Your task to perform on an android device: Show the shopping cart on bestbuy.com. Add logitech g pro to the cart on bestbuy.com, then select checkout. Image 0: 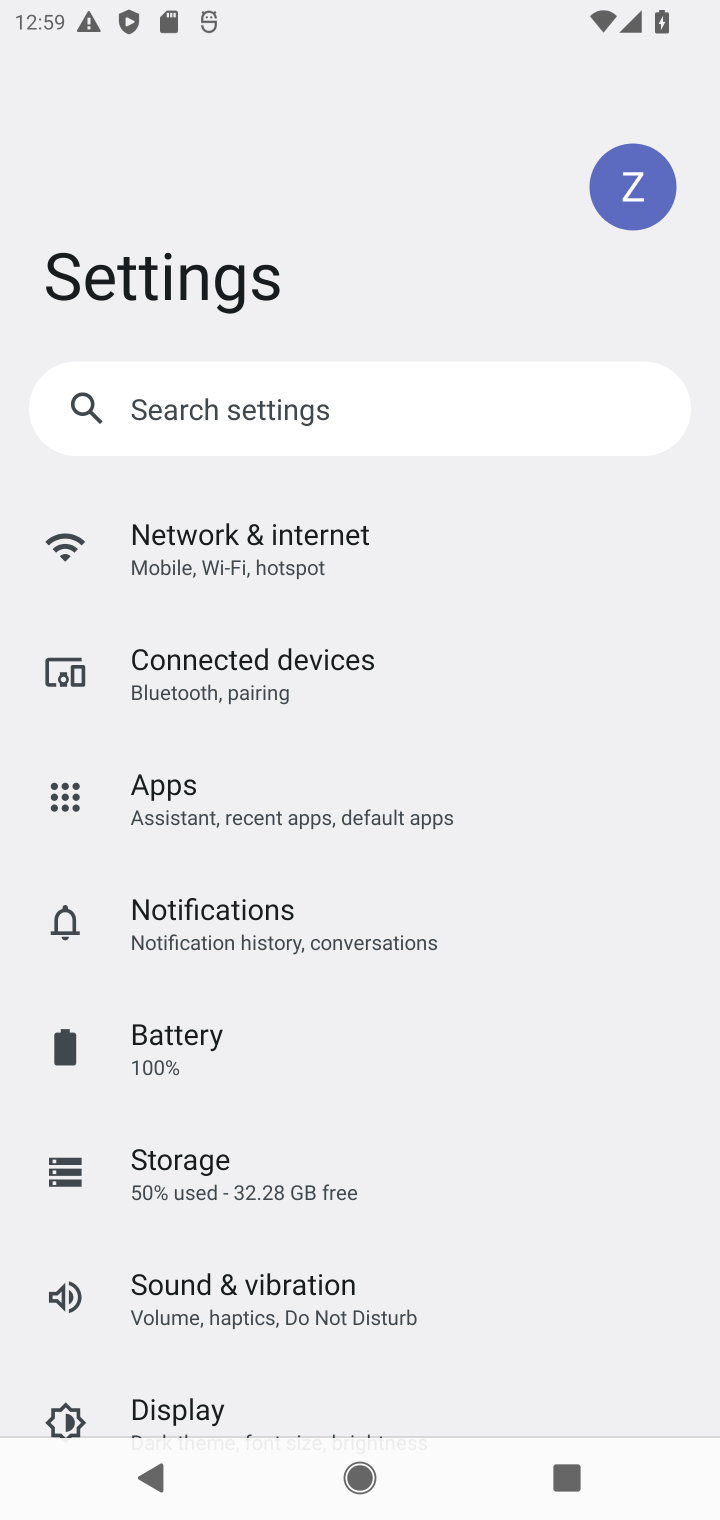
Step 0: press home button
Your task to perform on an android device: Show the shopping cart on bestbuy.com. Add logitech g pro to the cart on bestbuy.com, then select checkout. Image 1: 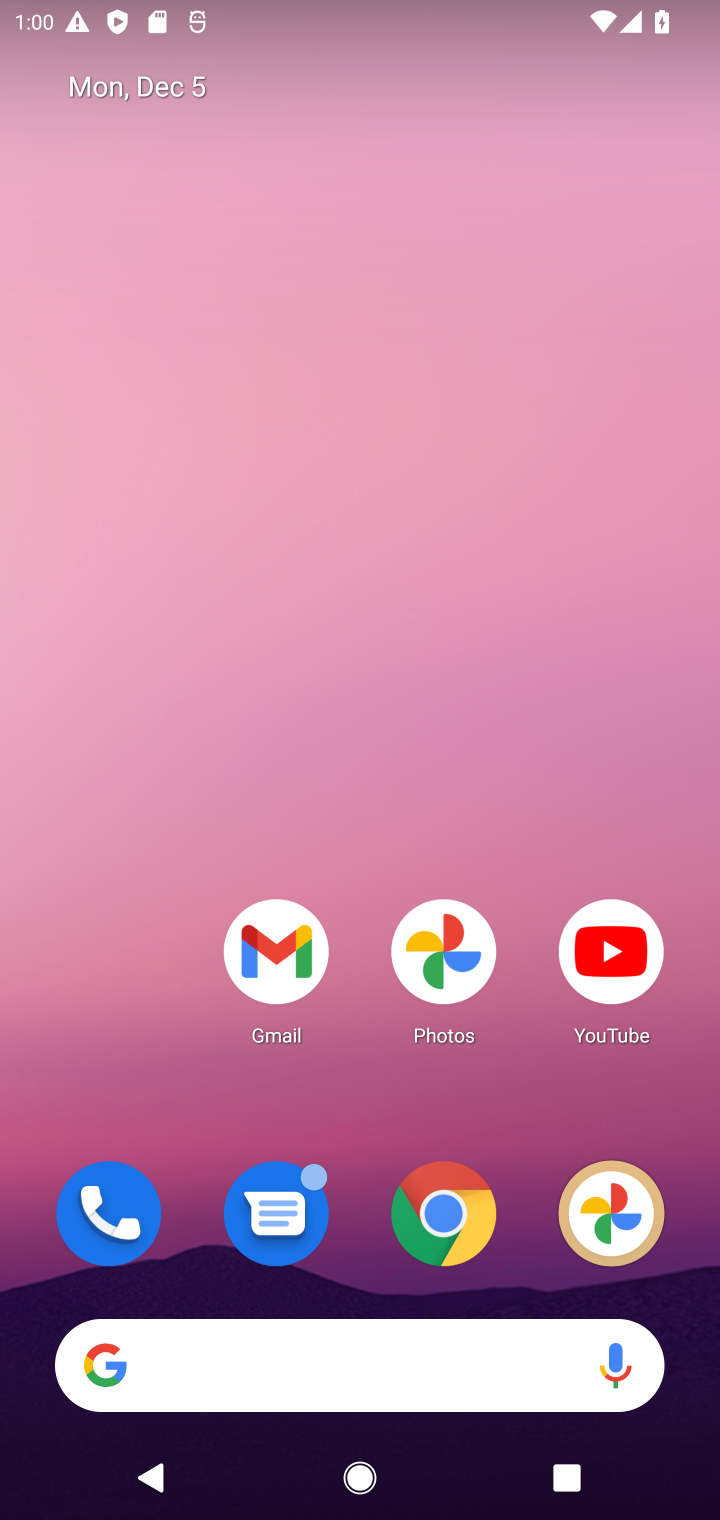
Step 1: click (438, 1236)
Your task to perform on an android device: Show the shopping cart on bestbuy.com. Add logitech g pro to the cart on bestbuy.com, then select checkout. Image 2: 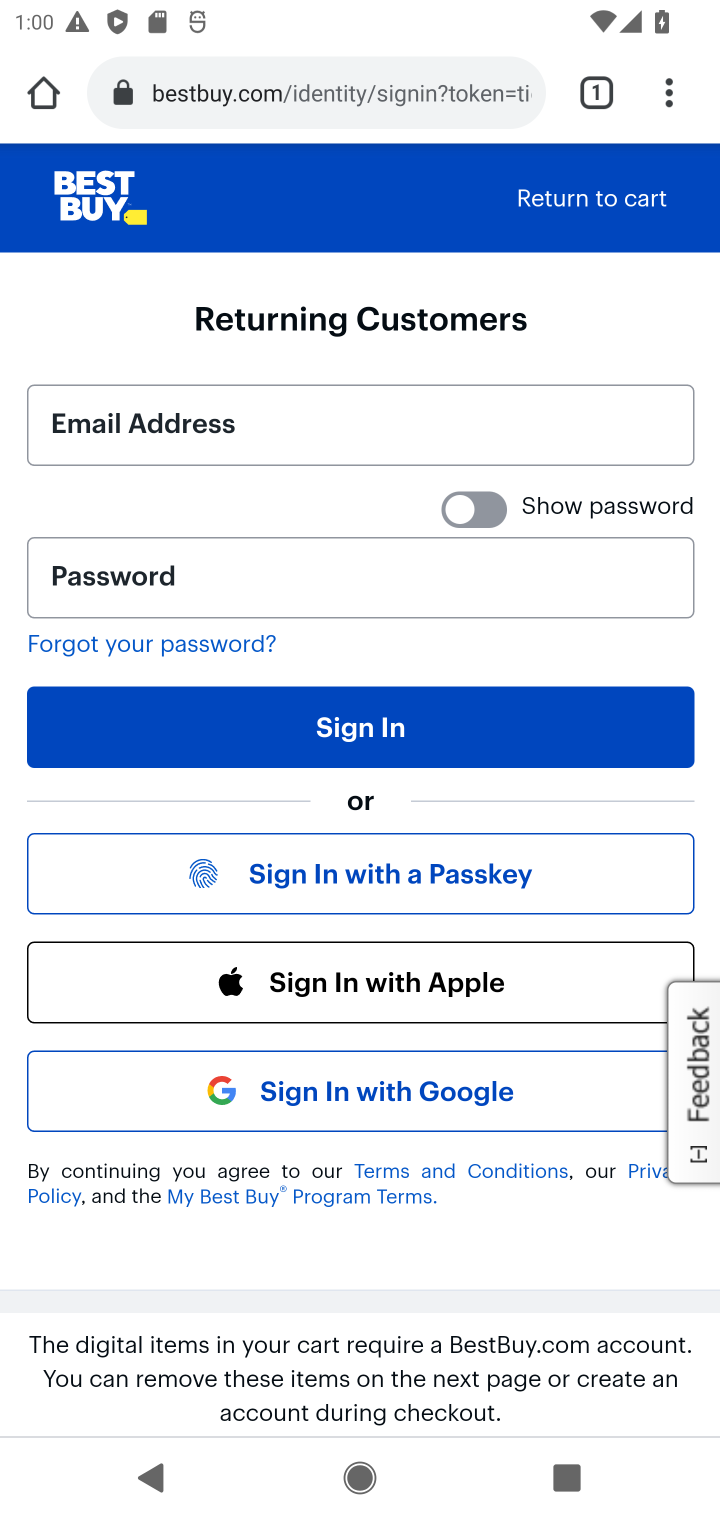
Step 2: click (615, 190)
Your task to perform on an android device: Show the shopping cart on bestbuy.com. Add logitech g pro to the cart on bestbuy.com, then select checkout. Image 3: 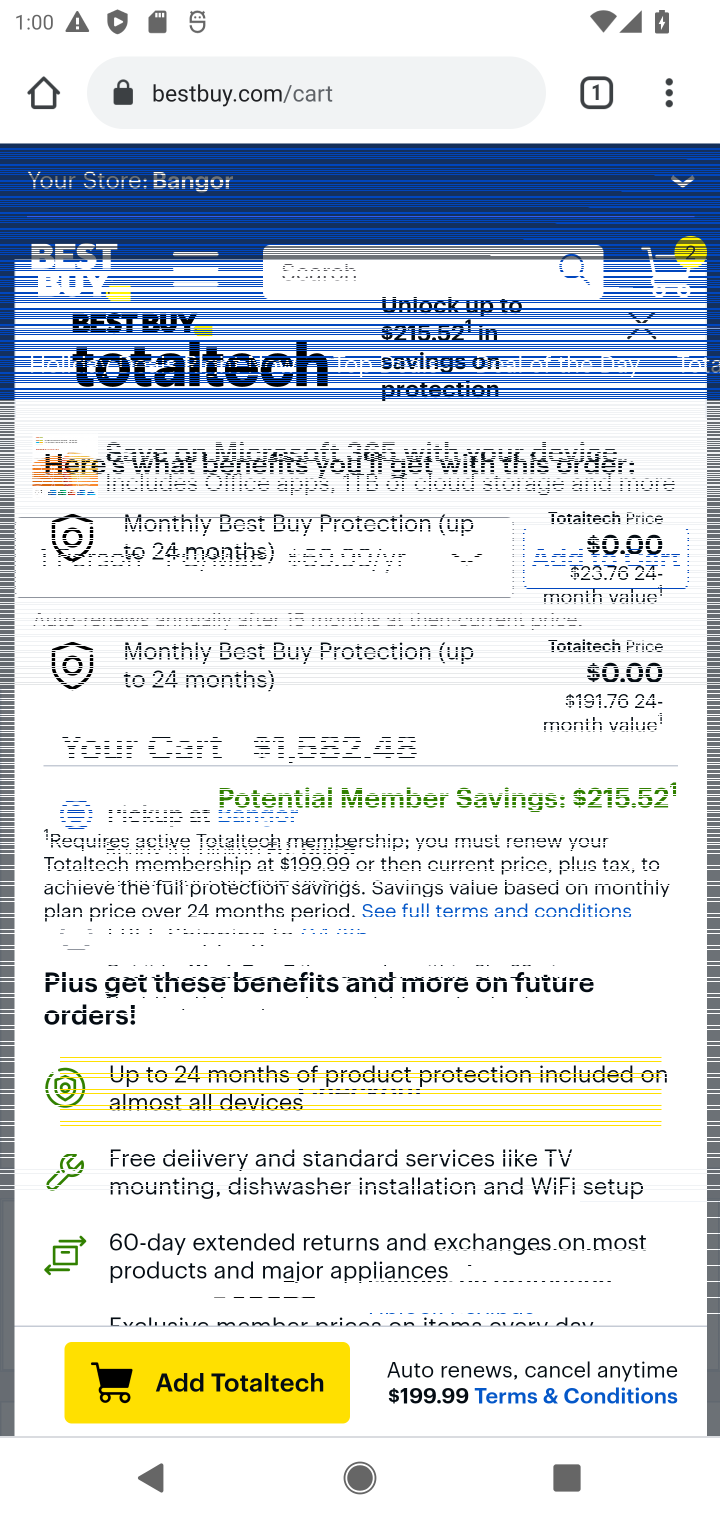
Step 3: click (641, 322)
Your task to perform on an android device: Show the shopping cart on bestbuy.com. Add logitech g pro to the cart on bestbuy.com, then select checkout. Image 4: 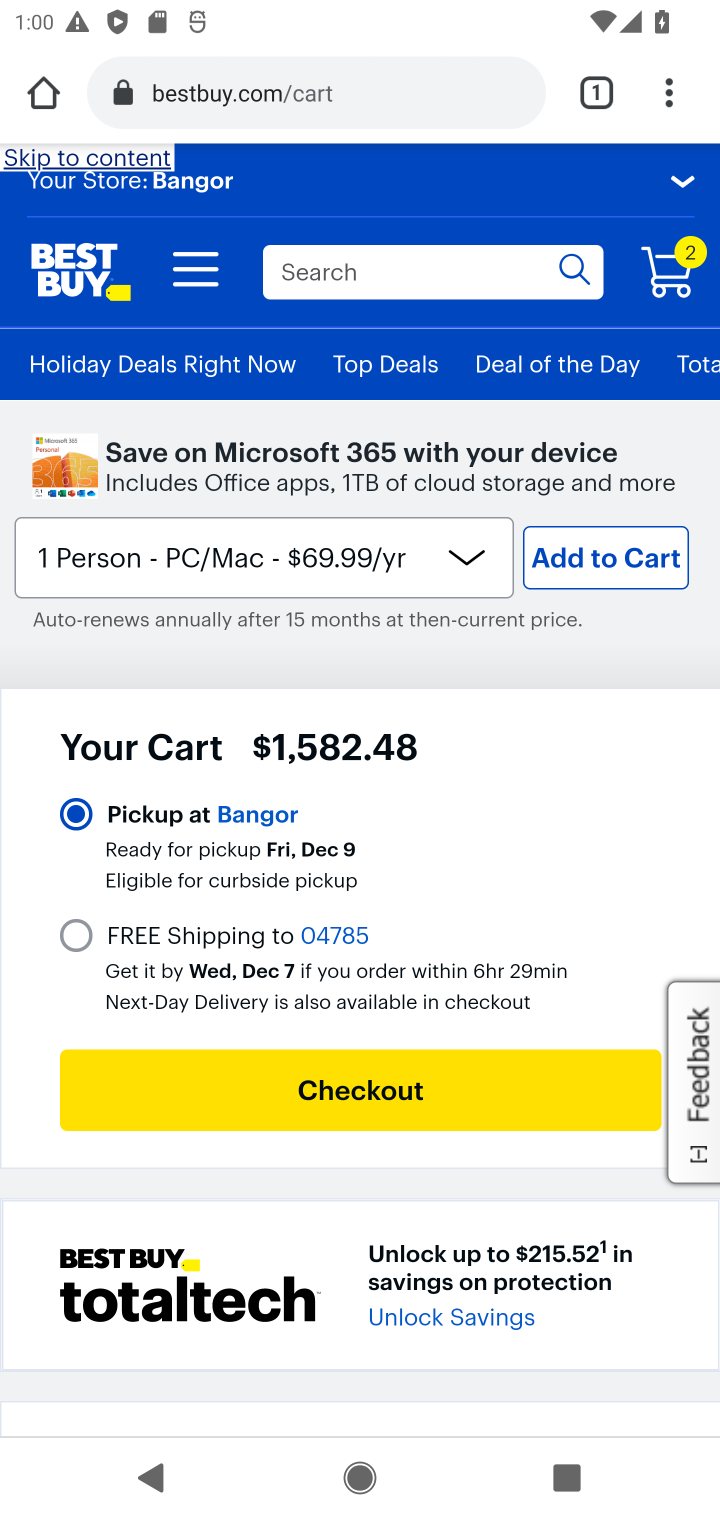
Step 4: drag from (524, 910) to (555, 316)
Your task to perform on an android device: Show the shopping cart on bestbuy.com. Add logitech g pro to the cart on bestbuy.com, then select checkout. Image 5: 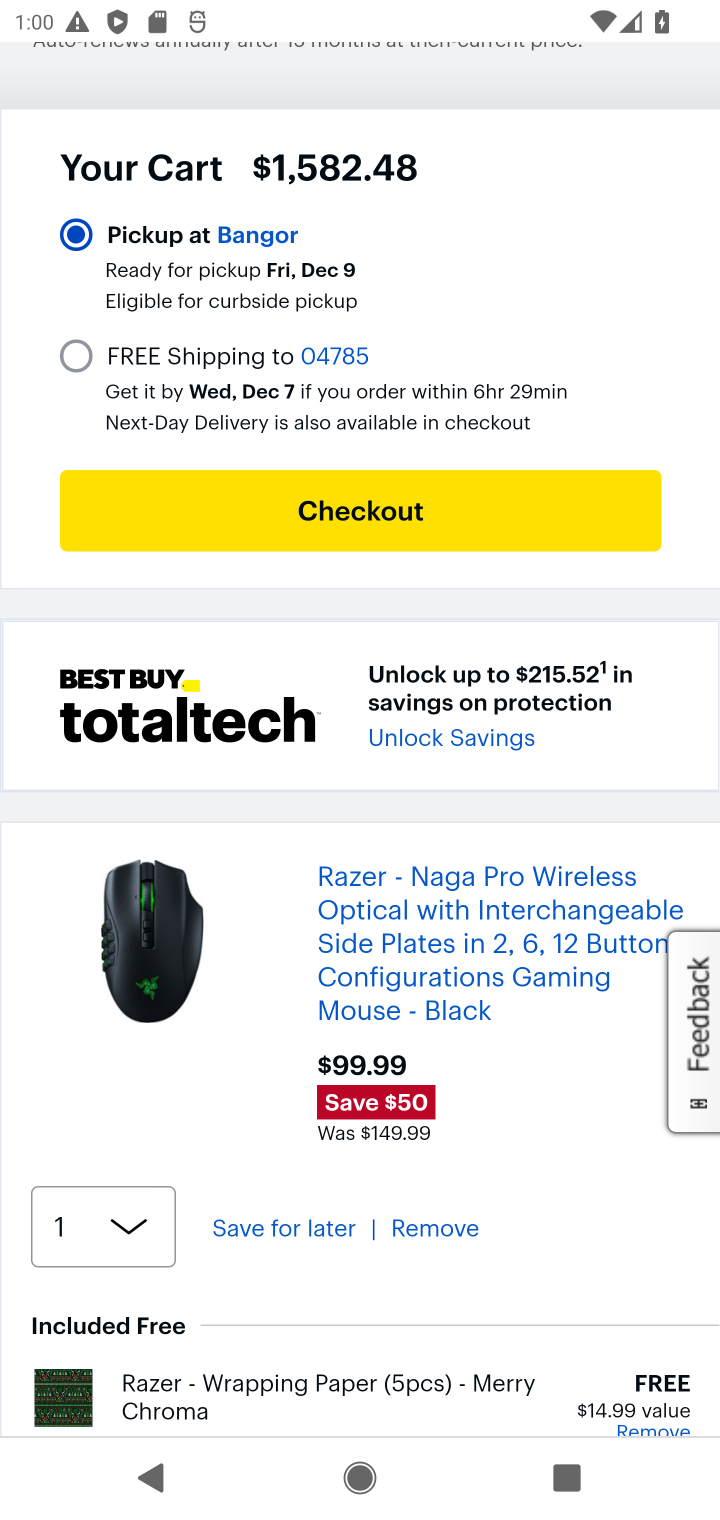
Step 5: drag from (560, 271) to (538, 879)
Your task to perform on an android device: Show the shopping cart on bestbuy.com. Add logitech g pro to the cart on bestbuy.com, then select checkout. Image 6: 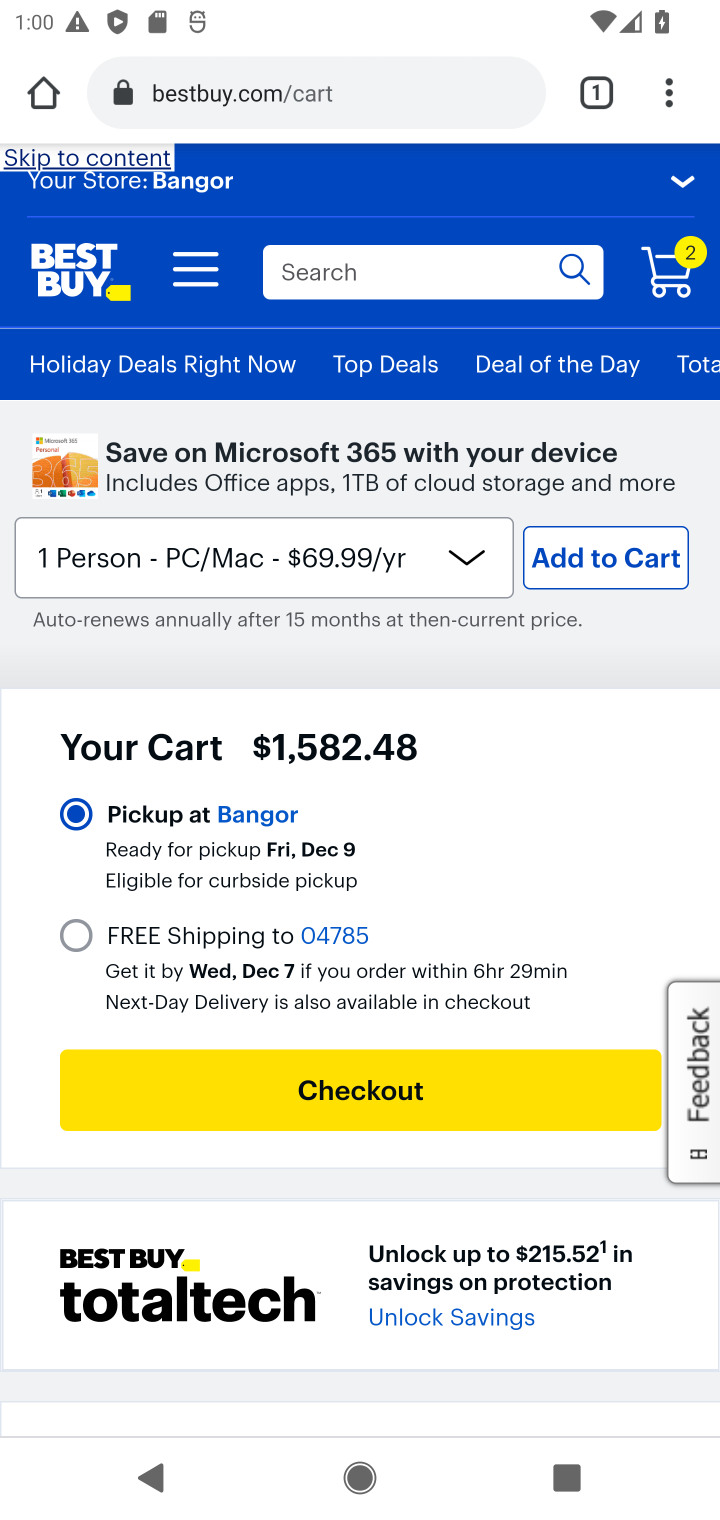
Step 6: click (348, 284)
Your task to perform on an android device: Show the shopping cart on bestbuy.com. Add logitech g pro to the cart on bestbuy.com, then select checkout. Image 7: 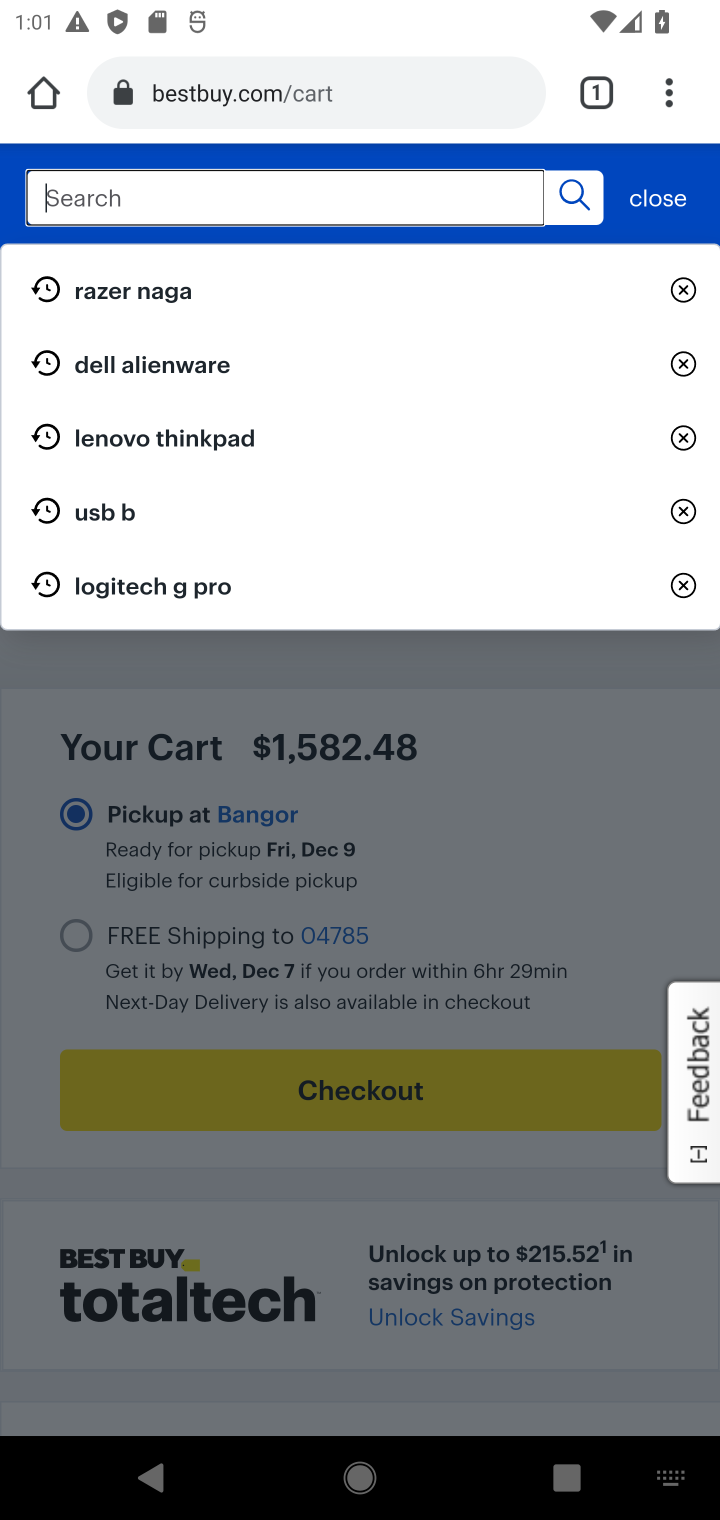
Step 7: type " logitech g pro"
Your task to perform on an android device: Show the shopping cart on bestbuy.com. Add logitech g pro to the cart on bestbuy.com, then select checkout. Image 8: 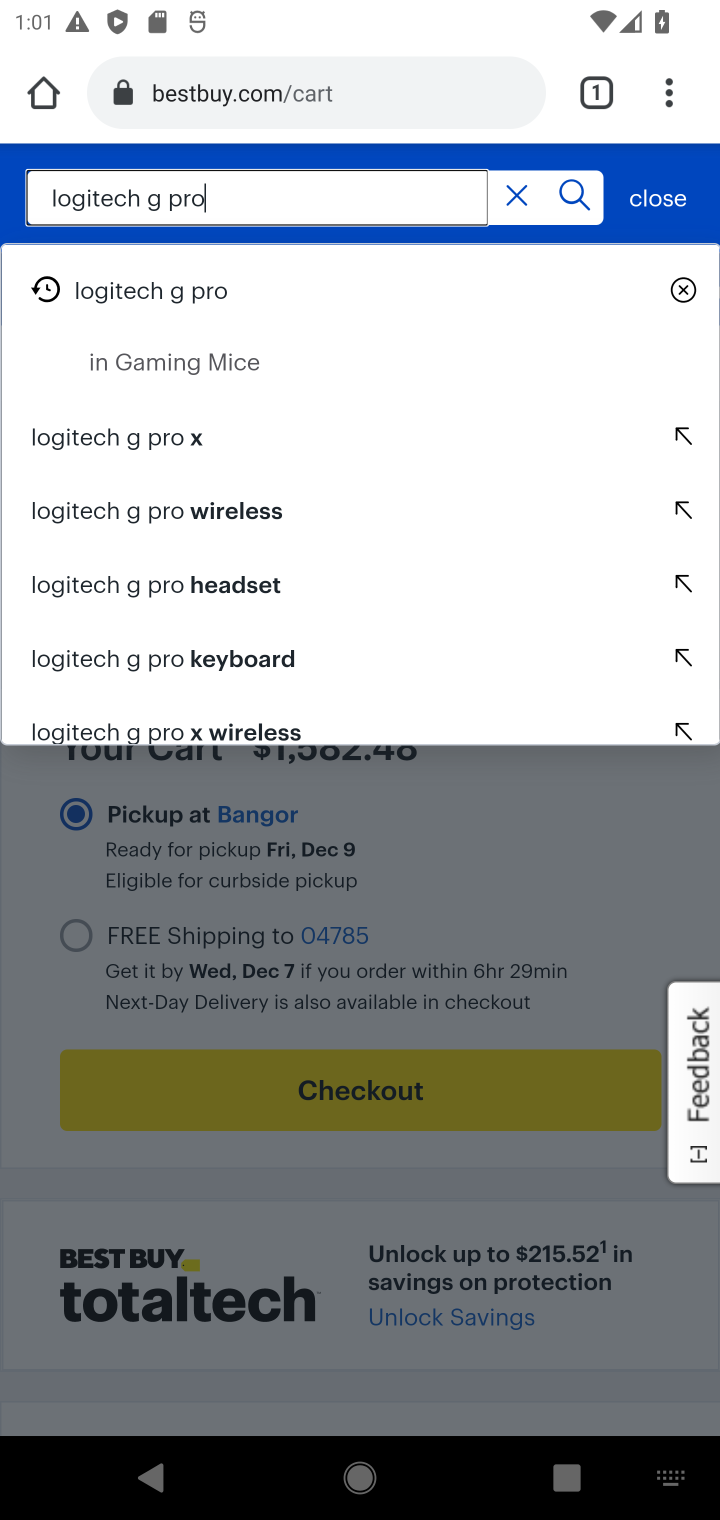
Step 8: click (193, 291)
Your task to perform on an android device: Show the shopping cart on bestbuy.com. Add logitech g pro to the cart on bestbuy.com, then select checkout. Image 9: 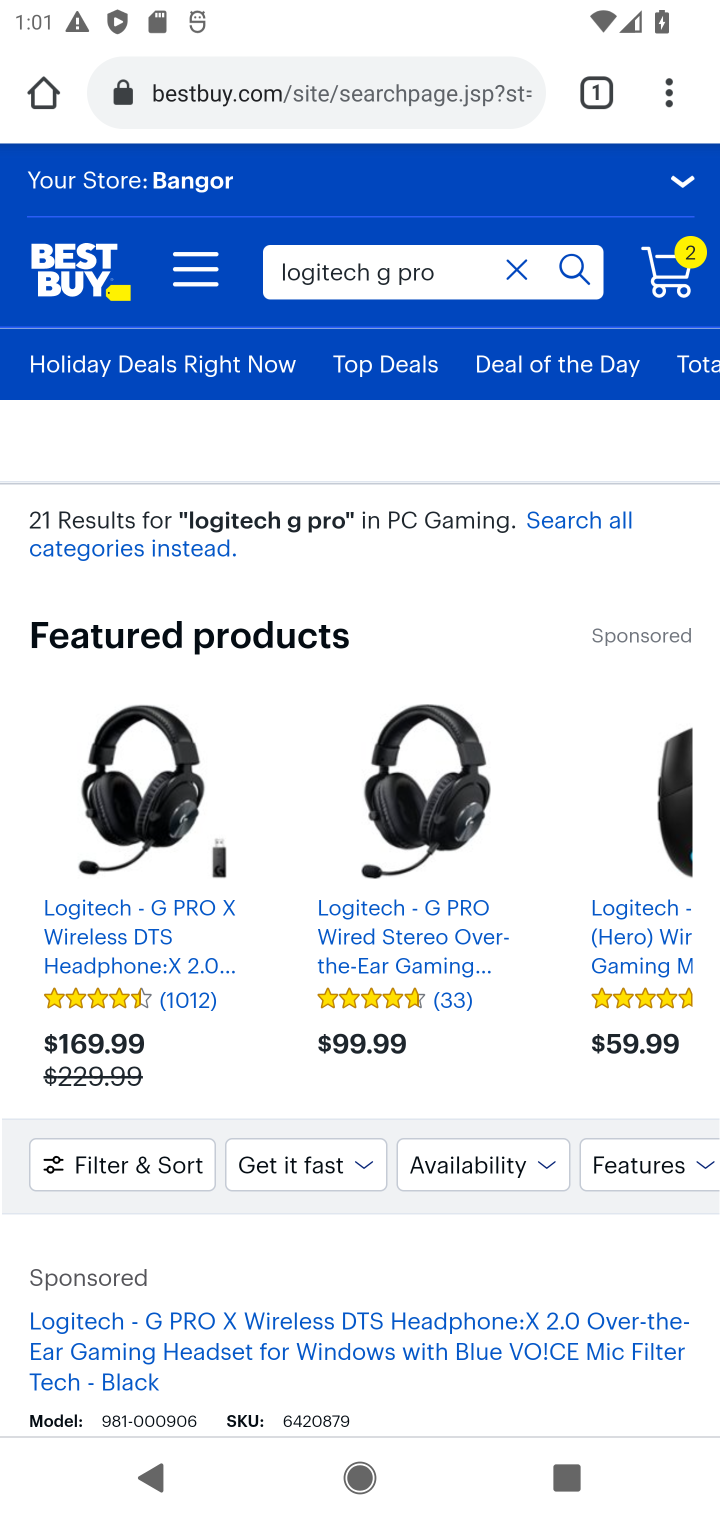
Step 9: drag from (360, 1013) to (342, 596)
Your task to perform on an android device: Show the shopping cart on bestbuy.com. Add logitech g pro to the cart on bestbuy.com, then select checkout. Image 10: 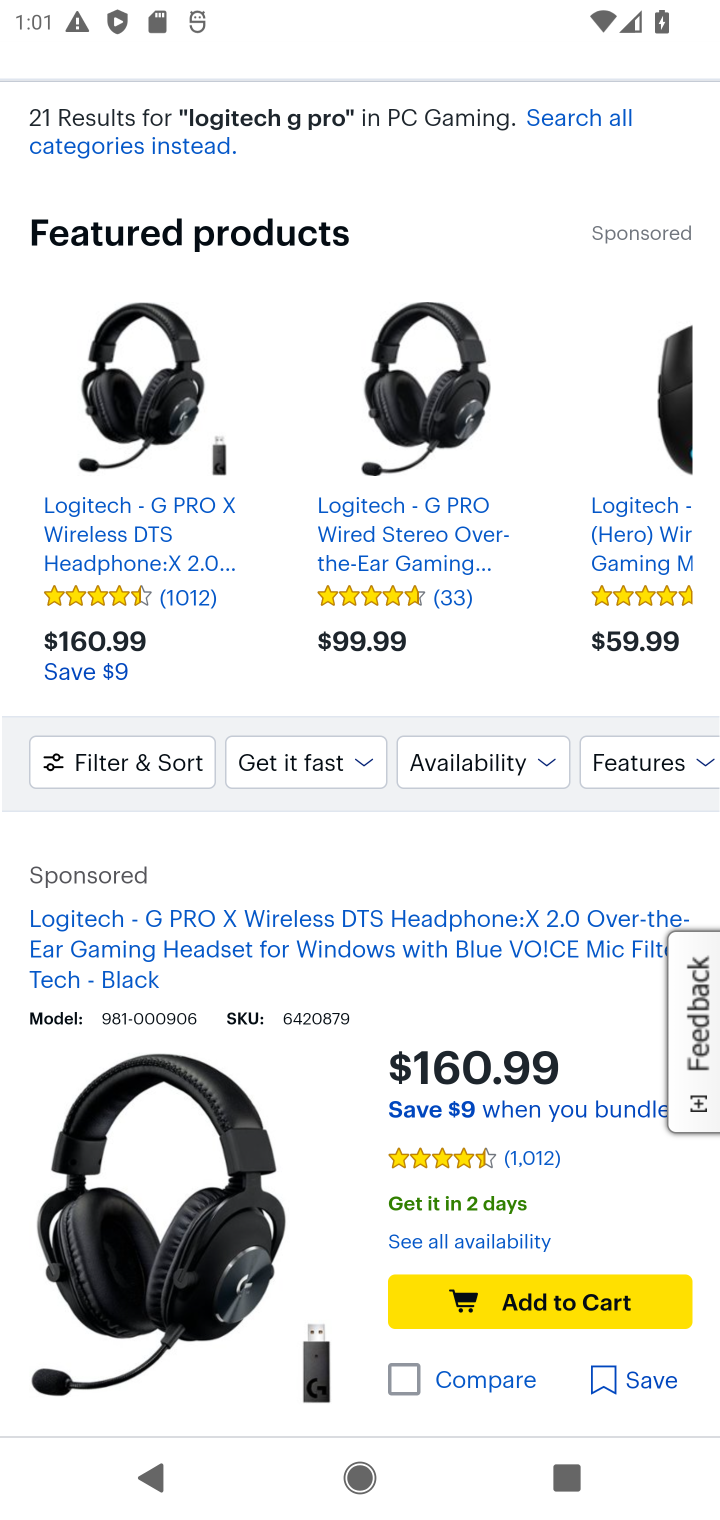
Step 10: click (559, 1306)
Your task to perform on an android device: Show the shopping cart on bestbuy.com. Add logitech g pro to the cart on bestbuy.com, then select checkout. Image 11: 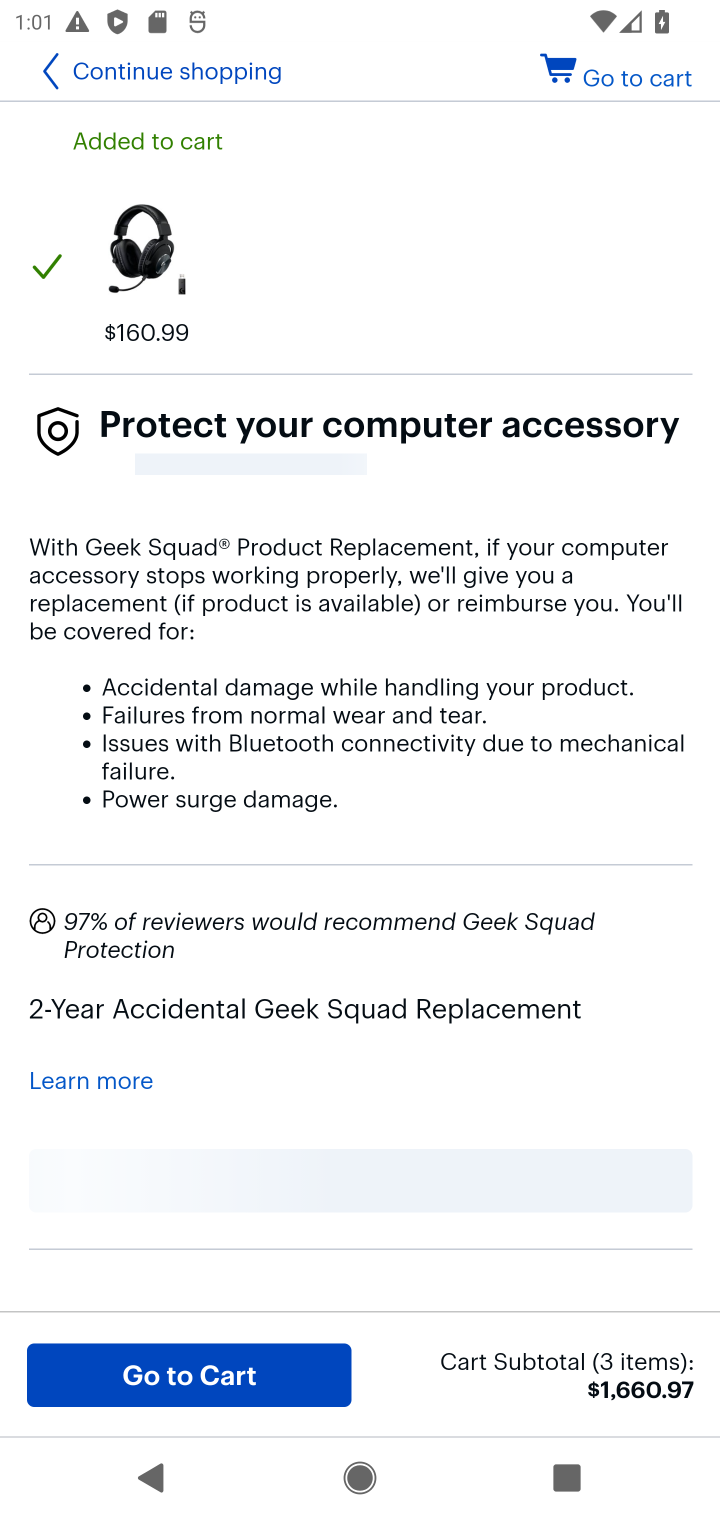
Step 11: click (629, 78)
Your task to perform on an android device: Show the shopping cart on bestbuy.com. Add logitech g pro to the cart on bestbuy.com, then select checkout. Image 12: 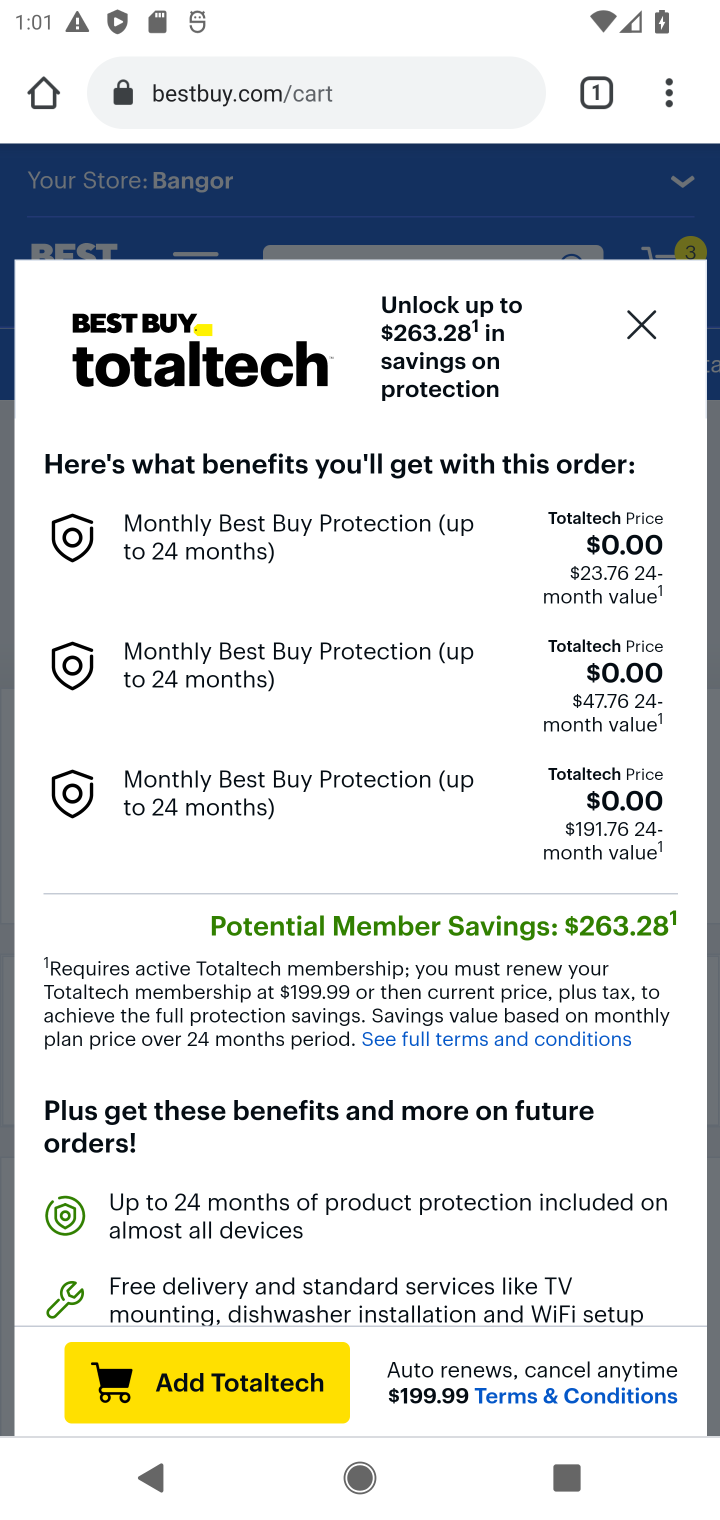
Step 12: click (633, 330)
Your task to perform on an android device: Show the shopping cart on bestbuy.com. Add logitech g pro to the cart on bestbuy.com, then select checkout. Image 13: 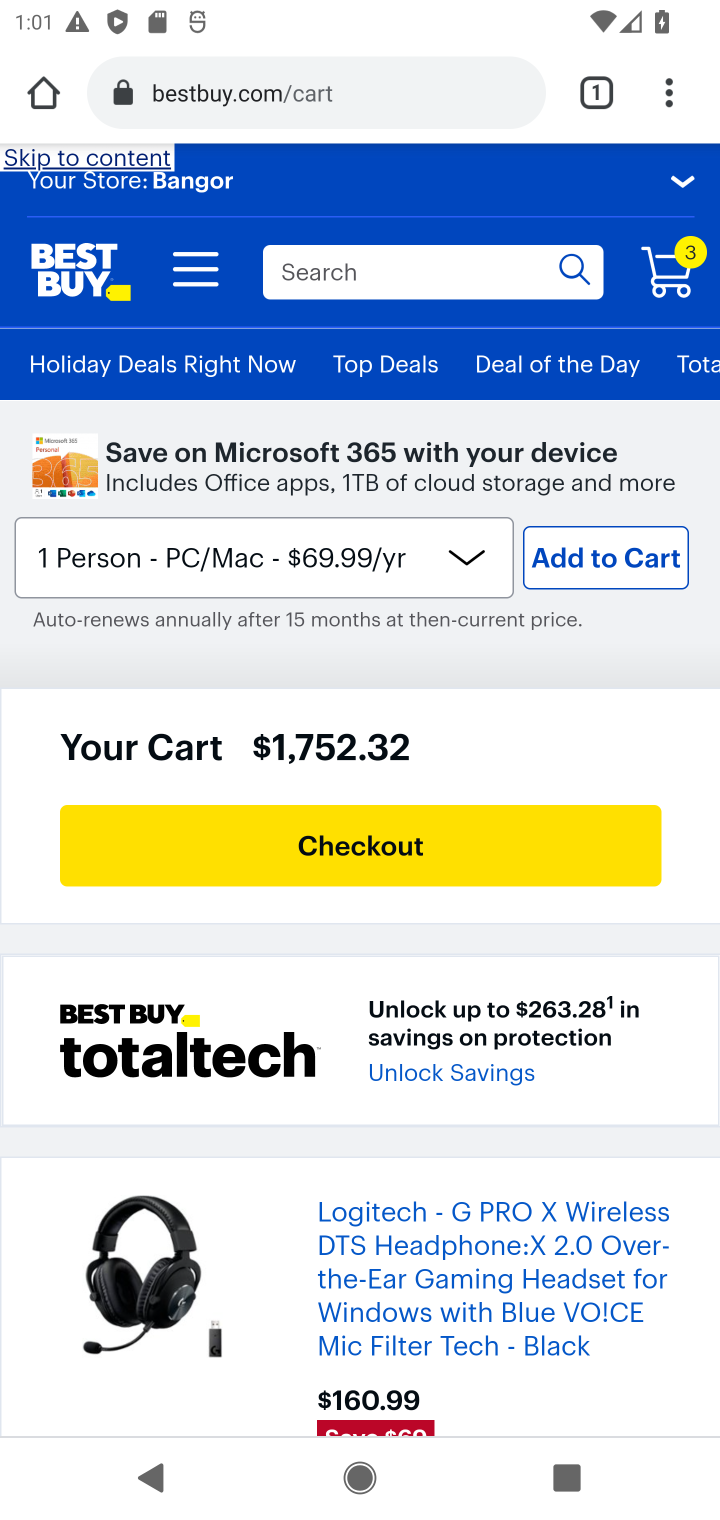
Step 13: click (309, 848)
Your task to perform on an android device: Show the shopping cart on bestbuy.com. Add logitech g pro to the cart on bestbuy.com, then select checkout. Image 14: 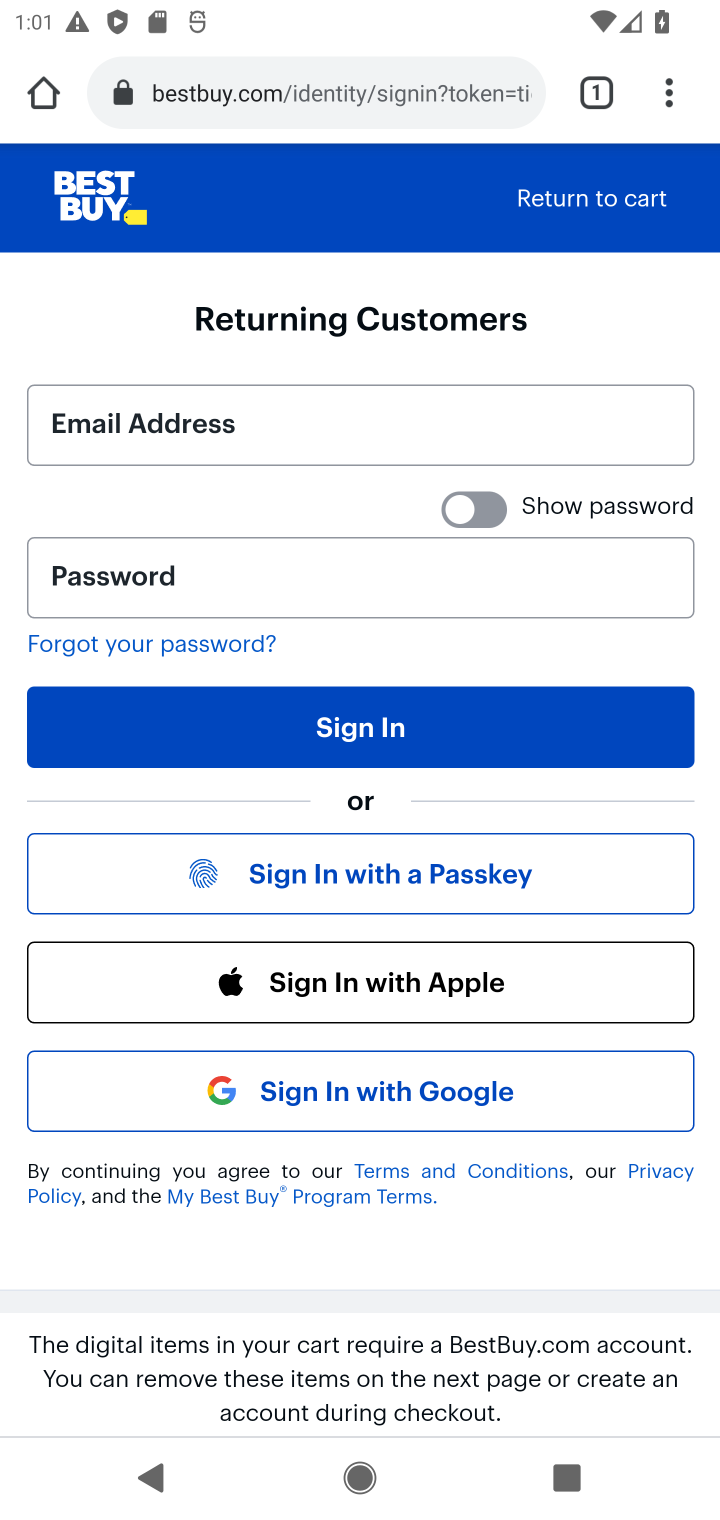
Step 14: task complete